Your task to perform on an android device: add a contact in the contacts app Image 0: 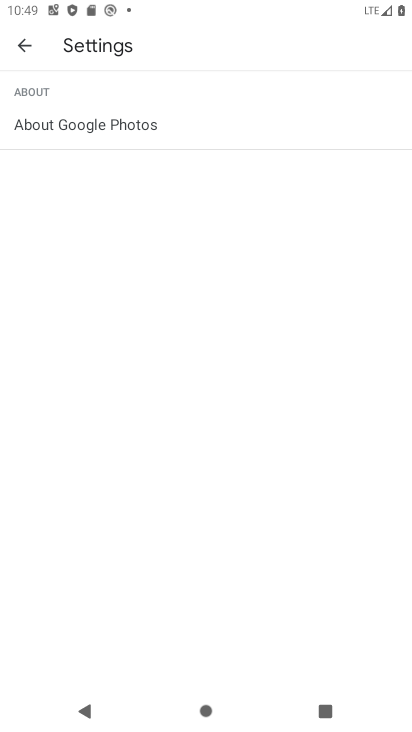
Step 0: press home button
Your task to perform on an android device: add a contact in the contacts app Image 1: 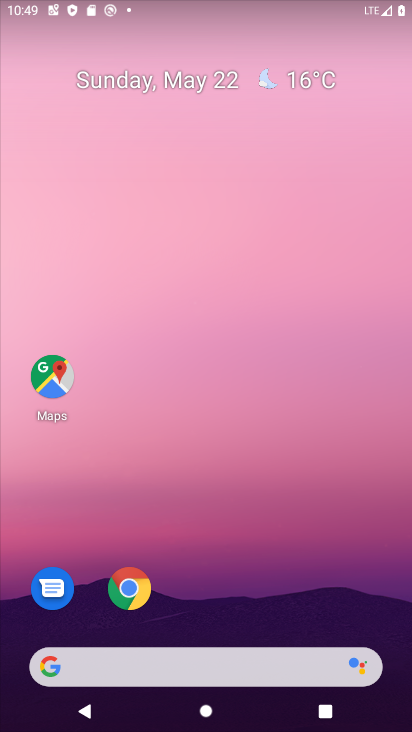
Step 1: drag from (200, 518) to (196, 217)
Your task to perform on an android device: add a contact in the contacts app Image 2: 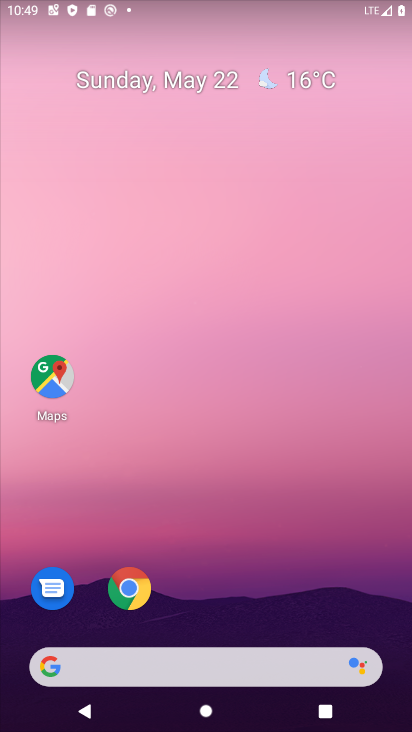
Step 2: drag from (224, 618) to (224, 231)
Your task to perform on an android device: add a contact in the contacts app Image 3: 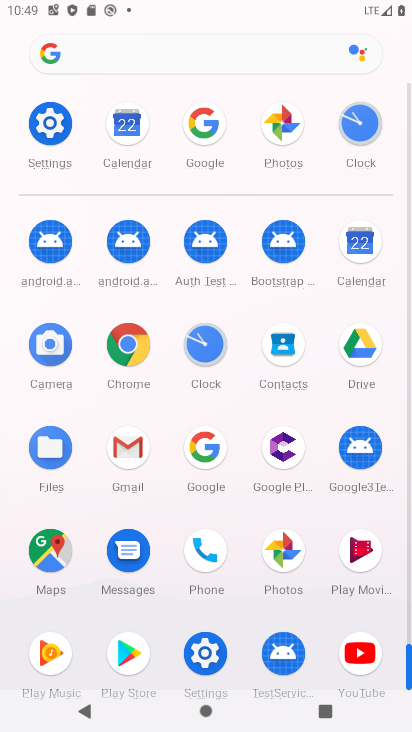
Step 3: click (264, 340)
Your task to perform on an android device: add a contact in the contacts app Image 4: 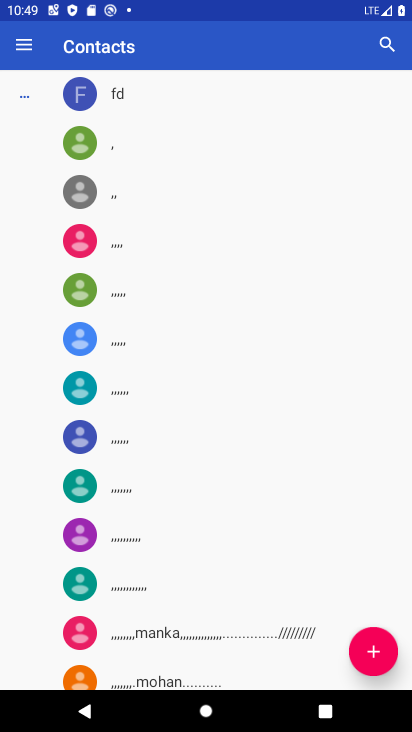
Step 4: click (374, 655)
Your task to perform on an android device: add a contact in the contacts app Image 5: 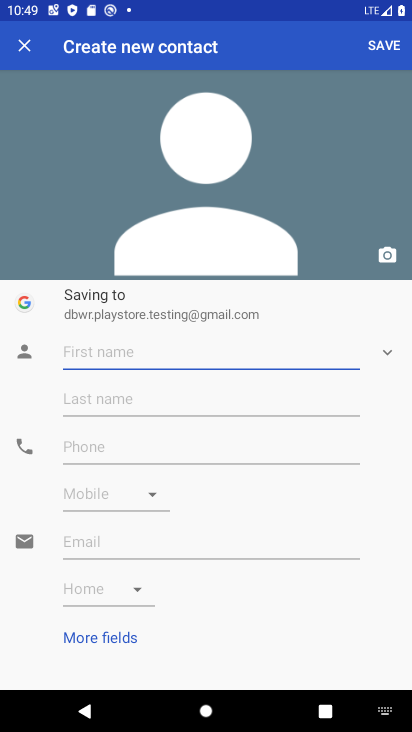
Step 5: type "dbgf"
Your task to perform on an android device: add a contact in the contacts app Image 6: 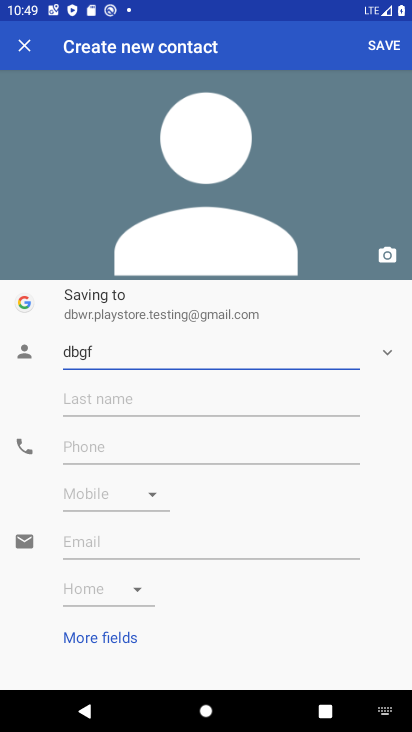
Step 6: click (127, 448)
Your task to perform on an android device: add a contact in the contacts app Image 7: 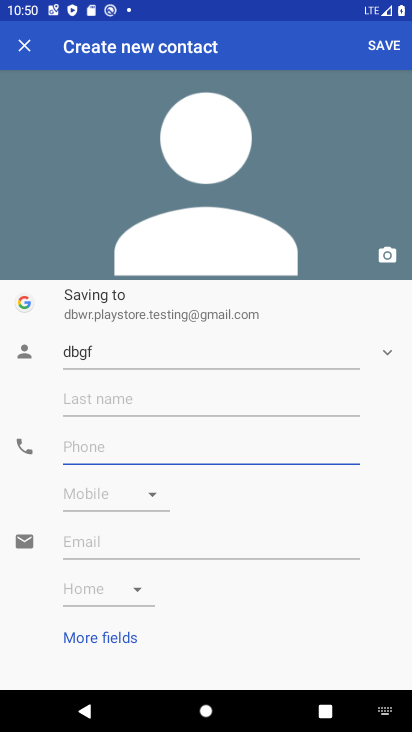
Step 7: type "54654375577"
Your task to perform on an android device: add a contact in the contacts app Image 8: 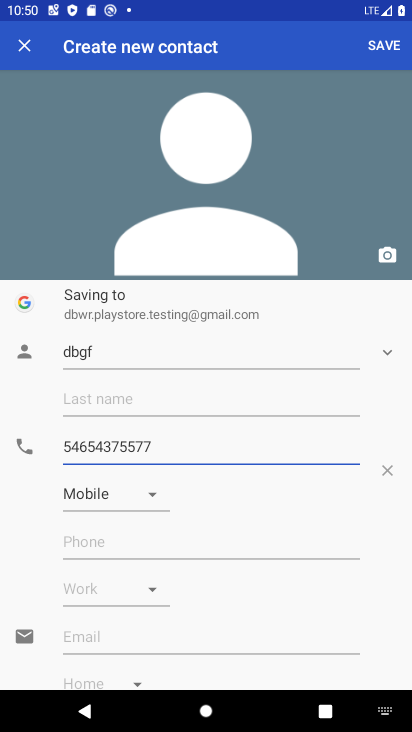
Step 8: click (384, 37)
Your task to perform on an android device: add a contact in the contacts app Image 9: 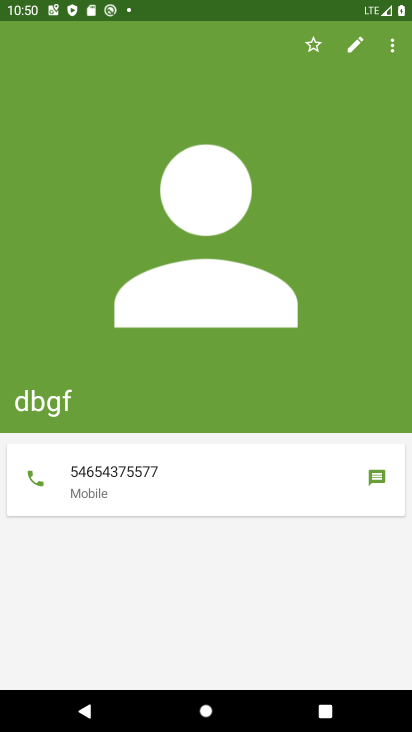
Step 9: task complete